Your task to perform on an android device: turn on airplane mode Image 0: 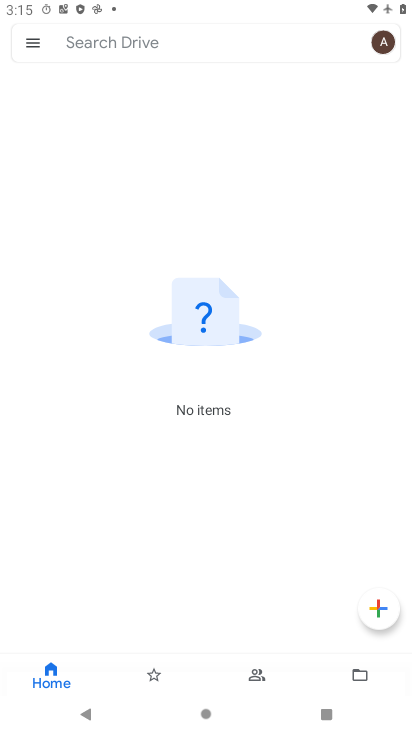
Step 0: press home button
Your task to perform on an android device: turn on airplane mode Image 1: 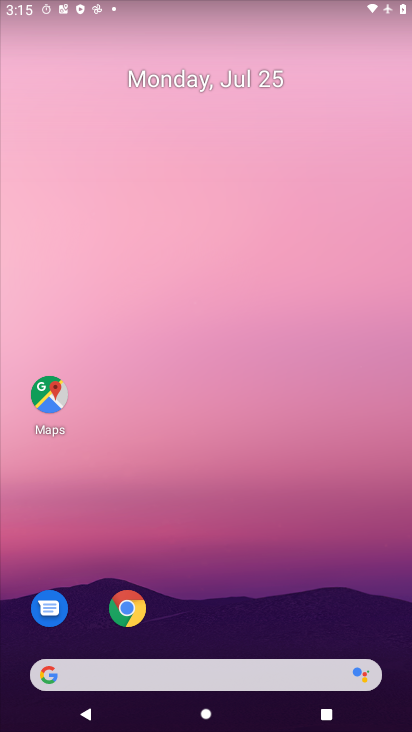
Step 1: drag from (241, 657) to (228, 189)
Your task to perform on an android device: turn on airplane mode Image 2: 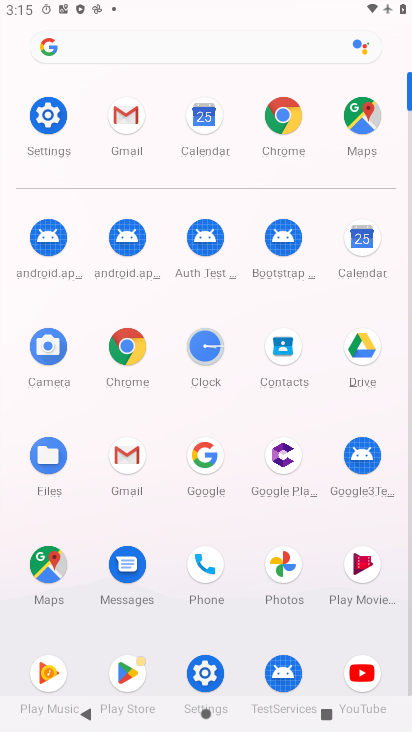
Step 2: click (50, 132)
Your task to perform on an android device: turn on airplane mode Image 3: 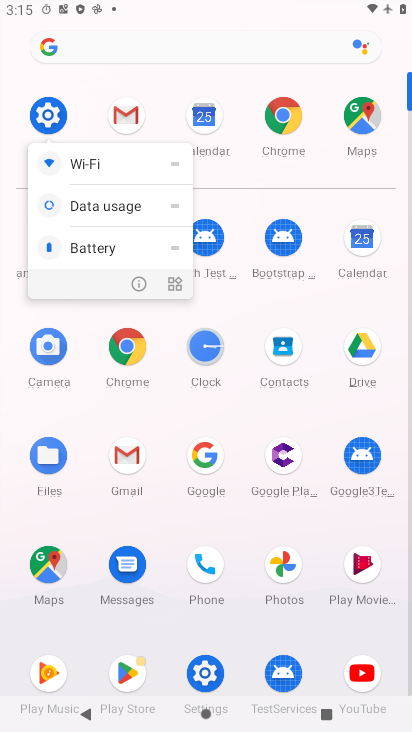
Step 3: click (56, 112)
Your task to perform on an android device: turn on airplane mode Image 4: 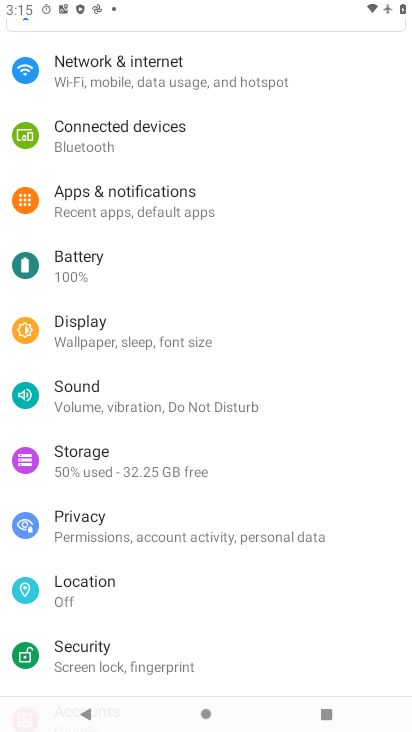
Step 4: drag from (168, 237) to (131, 552)
Your task to perform on an android device: turn on airplane mode Image 5: 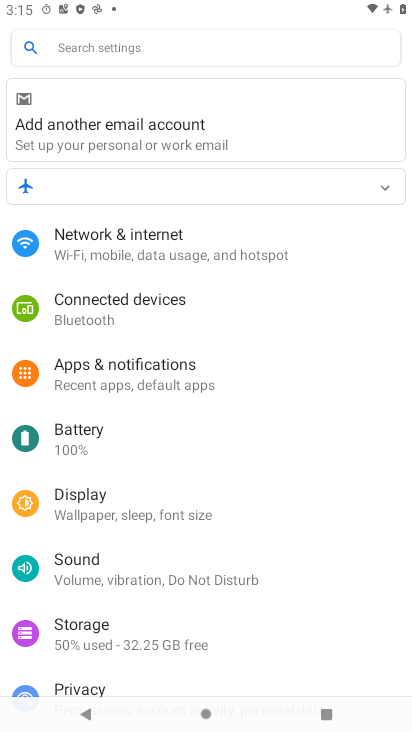
Step 5: drag from (149, 565) to (148, 304)
Your task to perform on an android device: turn on airplane mode Image 6: 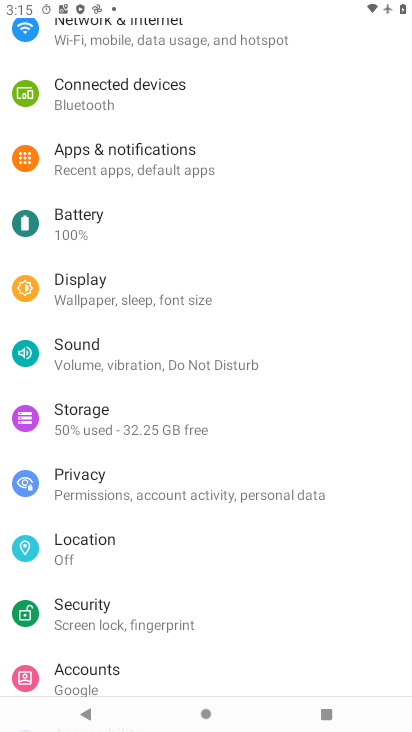
Step 6: drag from (162, 277) to (108, 579)
Your task to perform on an android device: turn on airplane mode Image 7: 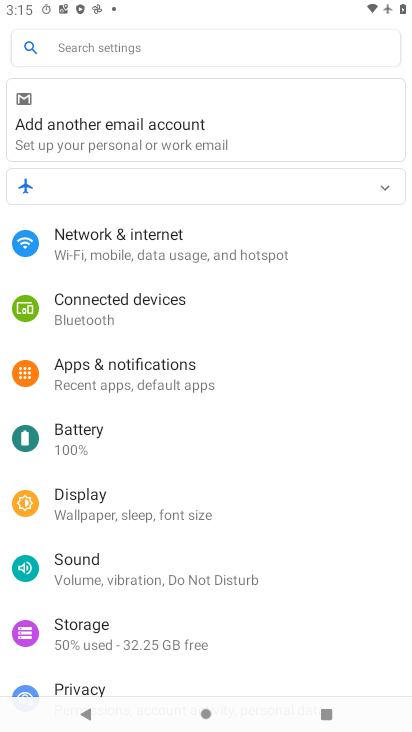
Step 7: click (135, 225)
Your task to perform on an android device: turn on airplane mode Image 8: 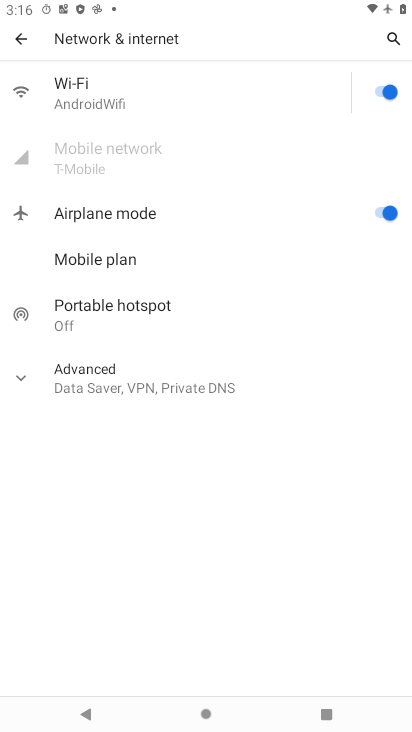
Step 8: task complete